Your task to perform on an android device: Is it going to rain this weekend? Image 0: 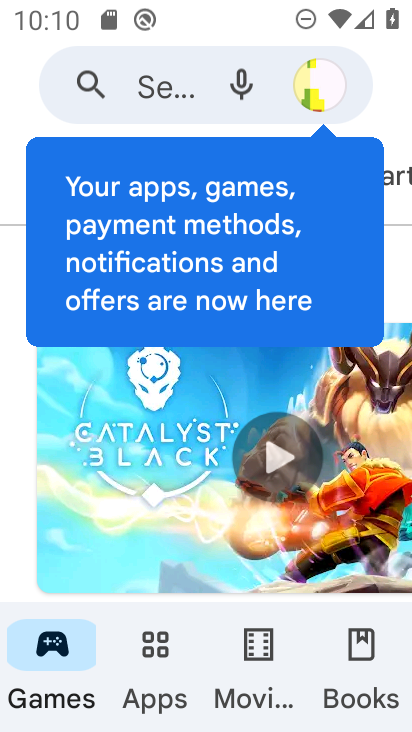
Step 0: press home button
Your task to perform on an android device: Is it going to rain this weekend? Image 1: 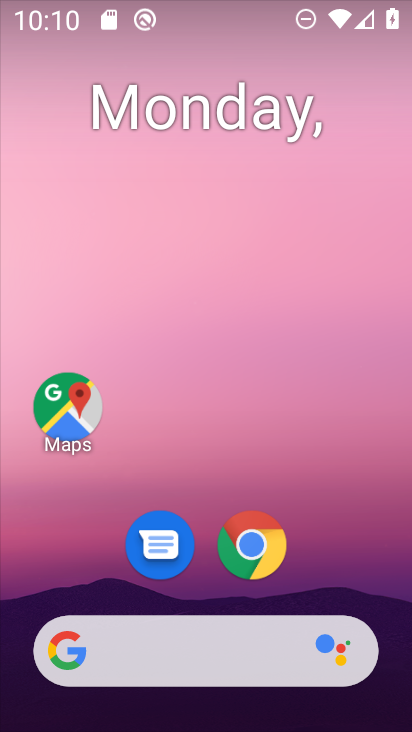
Step 1: drag from (12, 606) to (251, 232)
Your task to perform on an android device: Is it going to rain this weekend? Image 2: 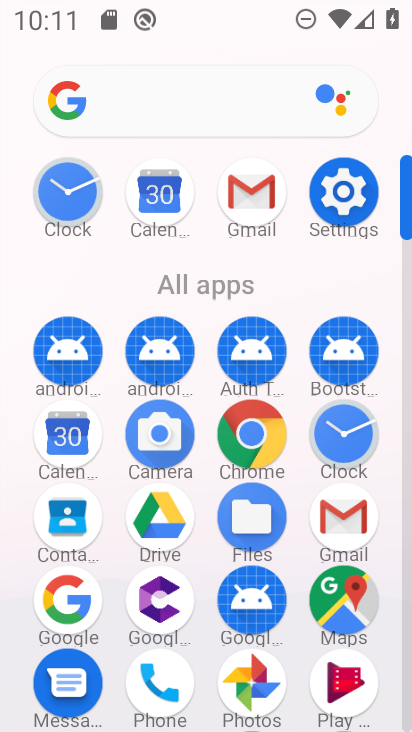
Step 2: click (55, 442)
Your task to perform on an android device: Is it going to rain this weekend? Image 3: 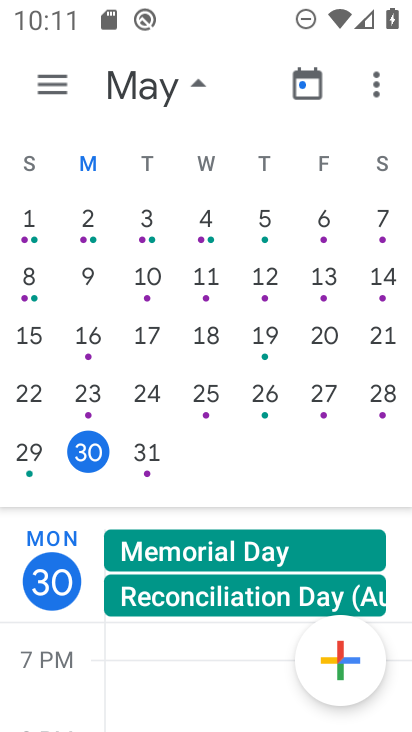
Step 3: press home button
Your task to perform on an android device: Is it going to rain this weekend? Image 4: 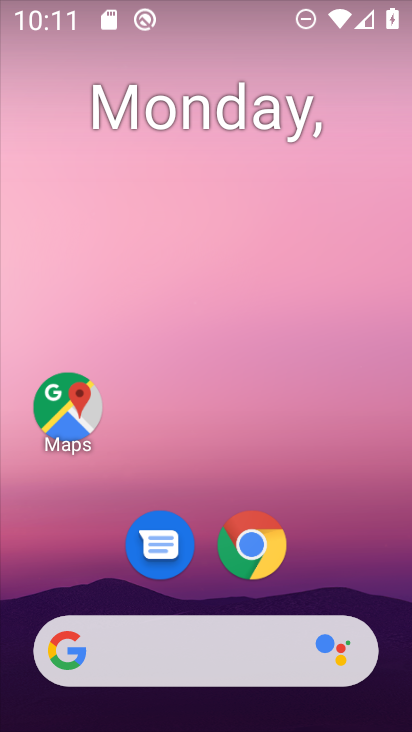
Step 4: click (123, 644)
Your task to perform on an android device: Is it going to rain this weekend? Image 5: 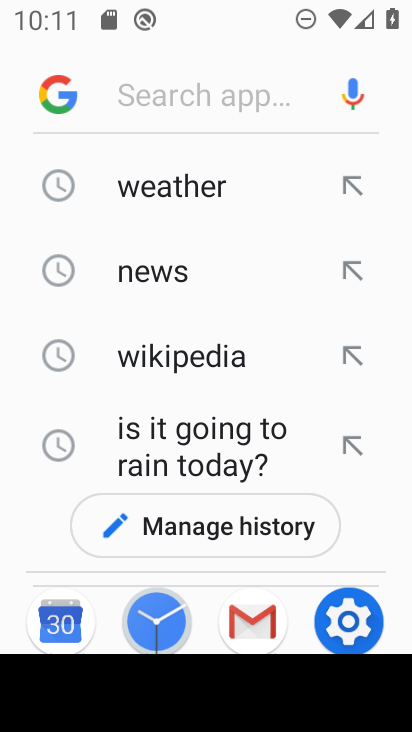
Step 5: click (218, 201)
Your task to perform on an android device: Is it going to rain this weekend? Image 6: 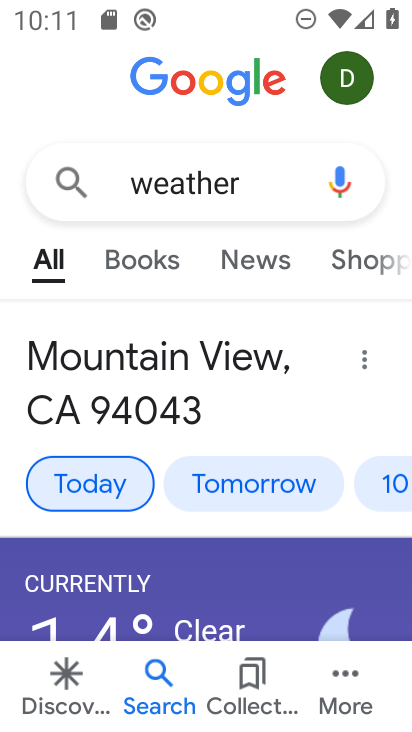
Step 6: click (380, 496)
Your task to perform on an android device: Is it going to rain this weekend? Image 7: 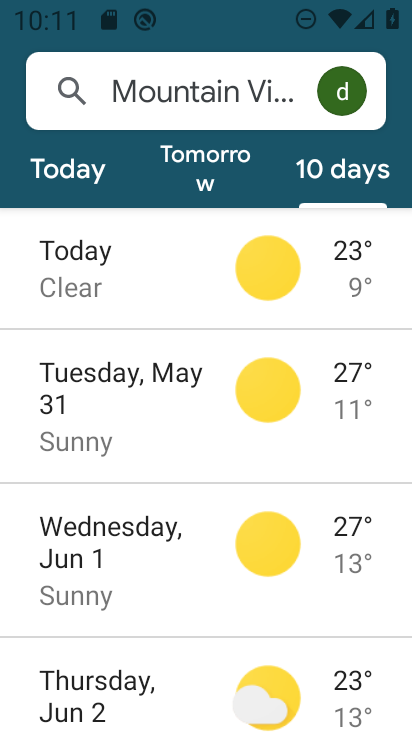
Step 7: task complete